Your task to perform on an android device: turn pop-ups on in chrome Image 0: 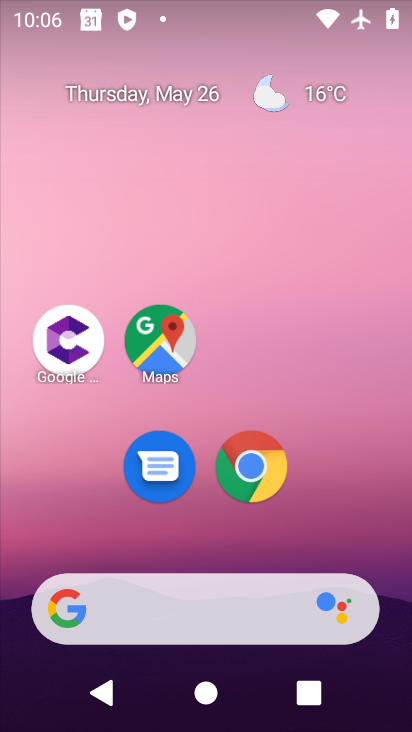
Step 0: click (251, 458)
Your task to perform on an android device: turn pop-ups on in chrome Image 1: 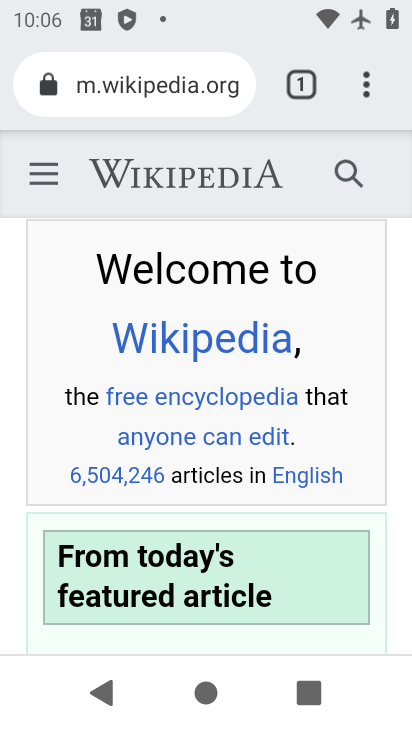
Step 1: click (367, 80)
Your task to perform on an android device: turn pop-ups on in chrome Image 2: 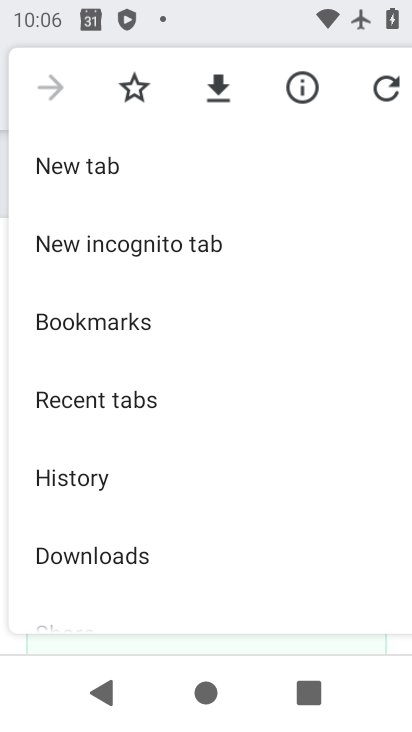
Step 2: drag from (282, 439) to (243, 176)
Your task to perform on an android device: turn pop-ups on in chrome Image 3: 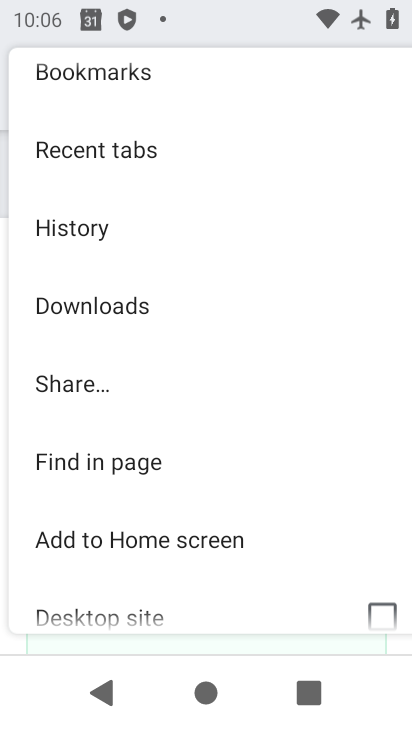
Step 3: drag from (235, 458) to (234, 242)
Your task to perform on an android device: turn pop-ups on in chrome Image 4: 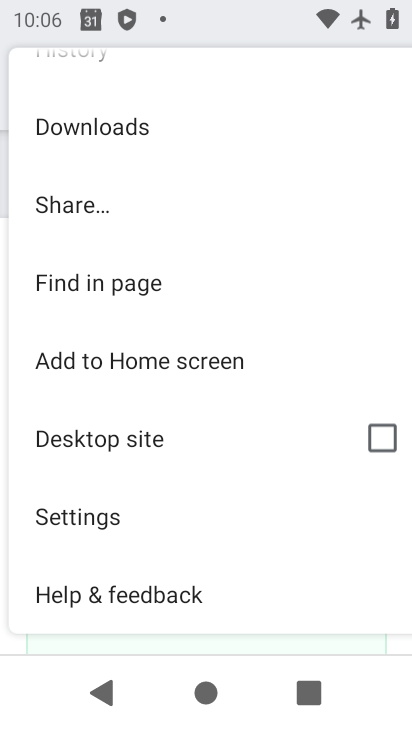
Step 4: click (79, 512)
Your task to perform on an android device: turn pop-ups on in chrome Image 5: 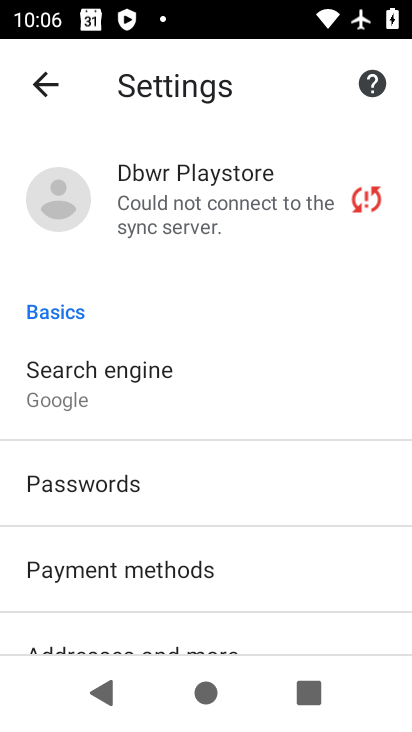
Step 5: drag from (265, 539) to (255, 256)
Your task to perform on an android device: turn pop-ups on in chrome Image 6: 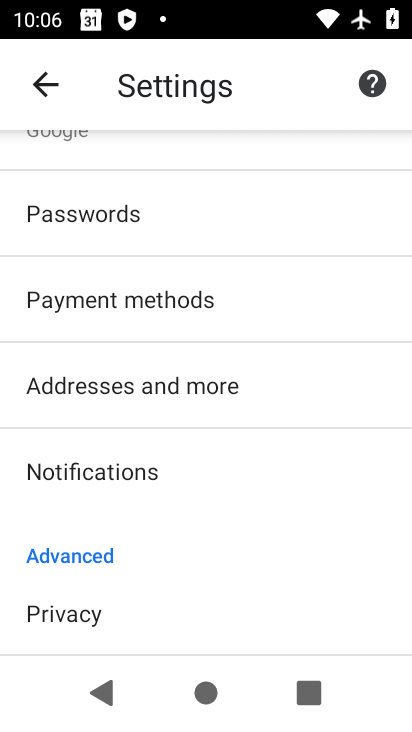
Step 6: drag from (178, 538) to (170, 233)
Your task to perform on an android device: turn pop-ups on in chrome Image 7: 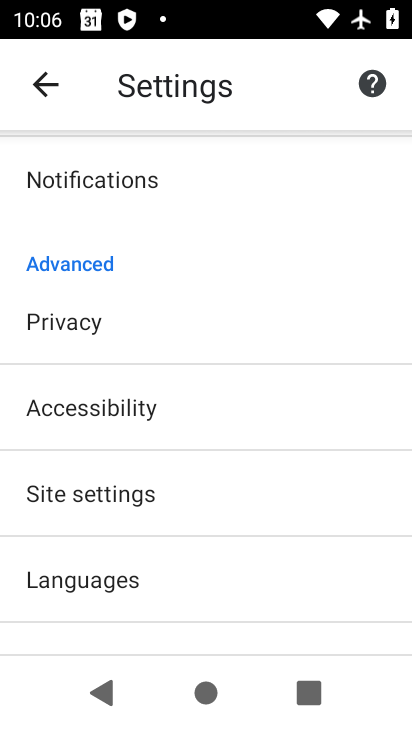
Step 7: click (108, 493)
Your task to perform on an android device: turn pop-ups on in chrome Image 8: 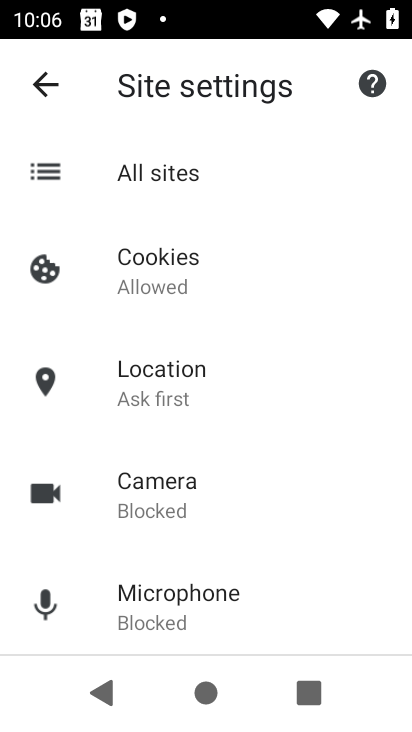
Step 8: drag from (224, 504) to (231, 262)
Your task to perform on an android device: turn pop-ups on in chrome Image 9: 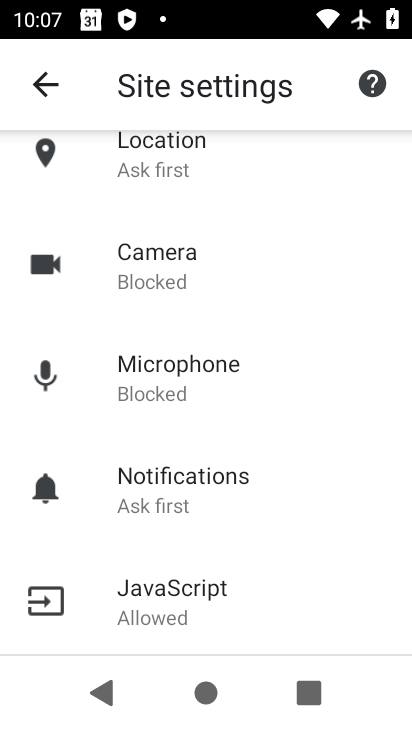
Step 9: drag from (228, 534) to (240, 345)
Your task to perform on an android device: turn pop-ups on in chrome Image 10: 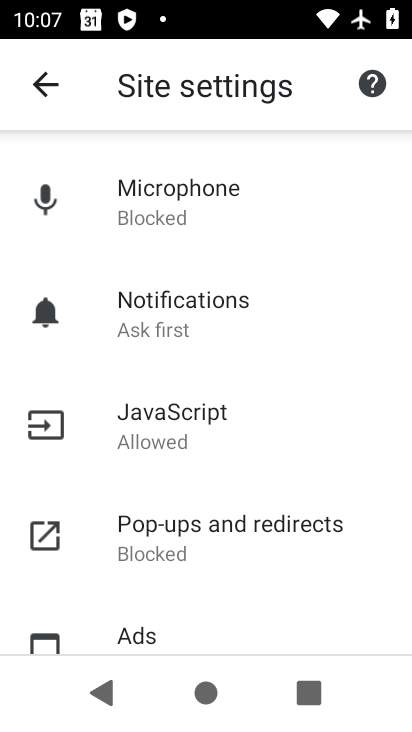
Step 10: click (199, 520)
Your task to perform on an android device: turn pop-ups on in chrome Image 11: 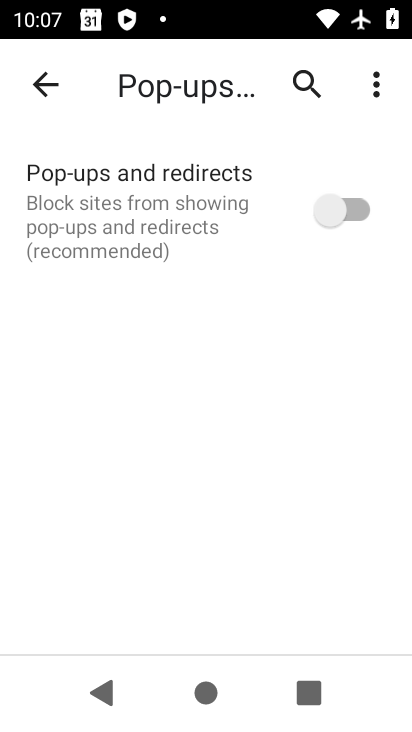
Step 11: click (332, 217)
Your task to perform on an android device: turn pop-ups on in chrome Image 12: 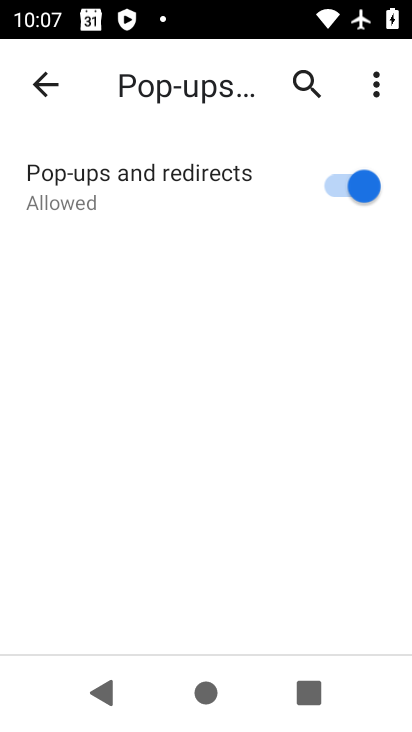
Step 12: task complete